Your task to perform on an android device: Go to settings Image 0: 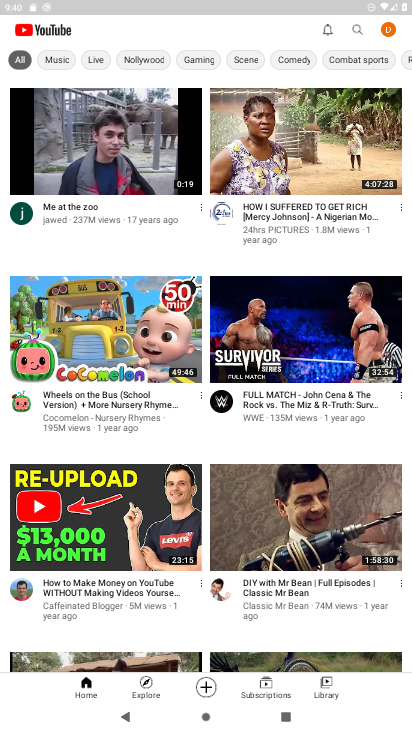
Step 0: press home button
Your task to perform on an android device: Go to settings Image 1: 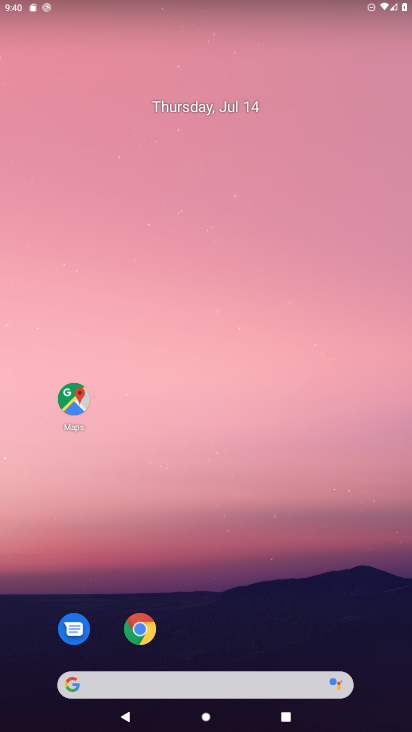
Step 1: drag from (196, 645) to (253, 9)
Your task to perform on an android device: Go to settings Image 2: 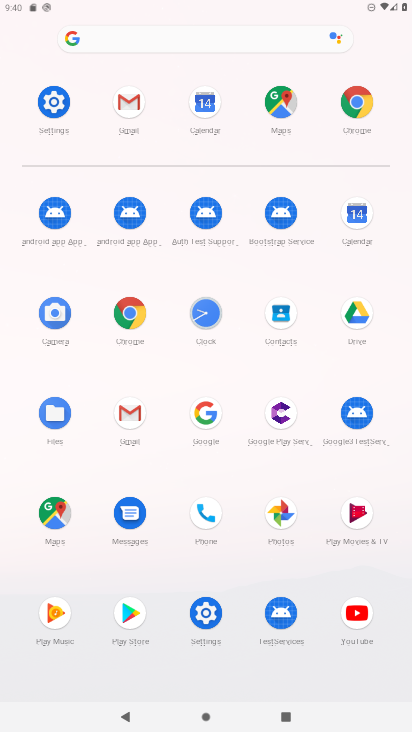
Step 2: click (203, 607)
Your task to perform on an android device: Go to settings Image 3: 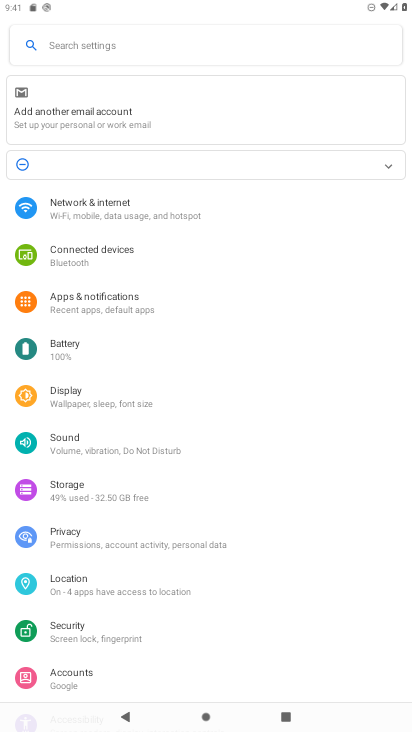
Step 3: task complete